Your task to perform on an android device: Open privacy settings Image 0: 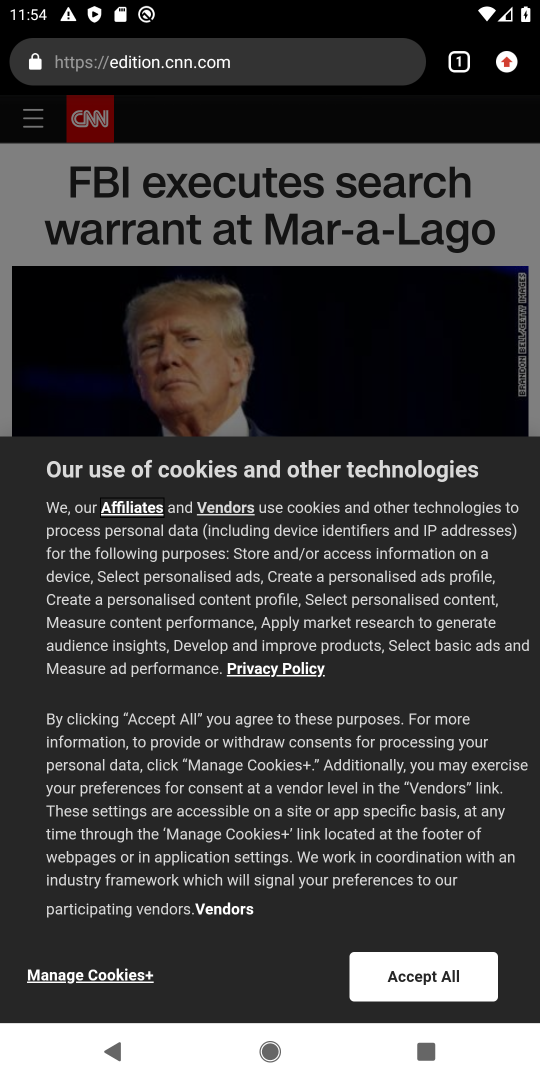
Step 0: press home button
Your task to perform on an android device: Open privacy settings Image 1: 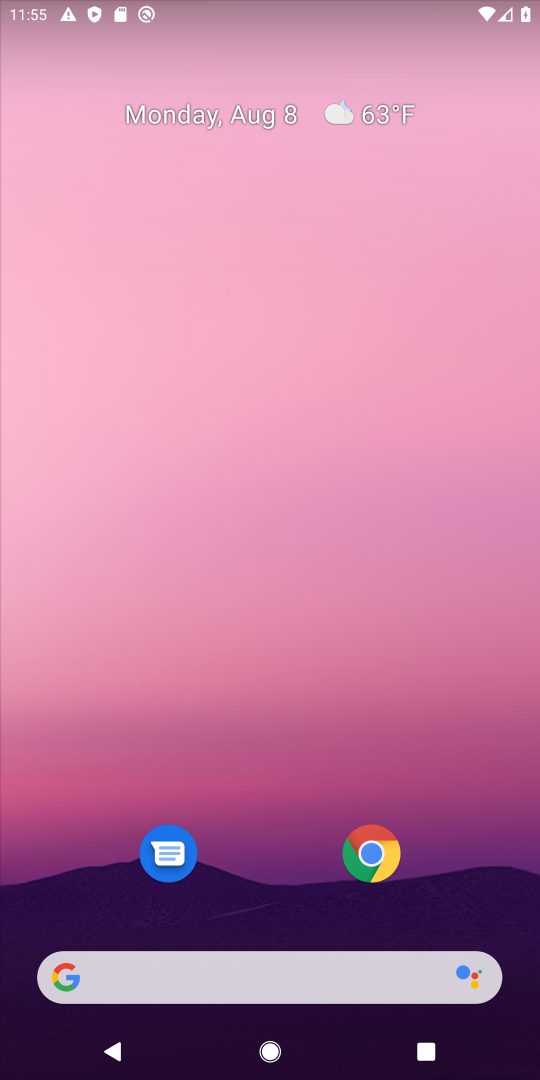
Step 1: drag from (249, 891) to (238, 48)
Your task to perform on an android device: Open privacy settings Image 2: 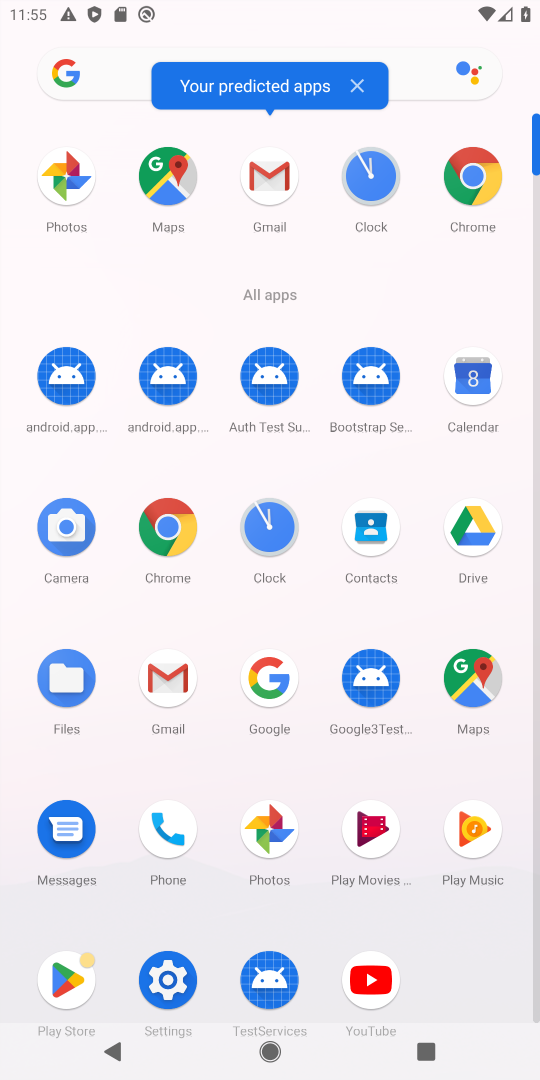
Step 2: click (171, 987)
Your task to perform on an android device: Open privacy settings Image 3: 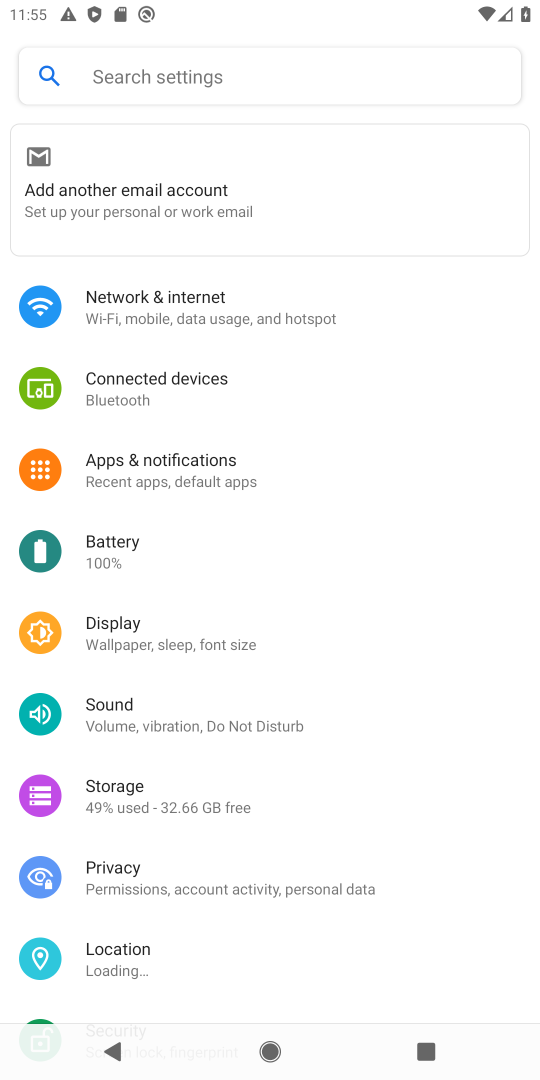
Step 3: click (141, 882)
Your task to perform on an android device: Open privacy settings Image 4: 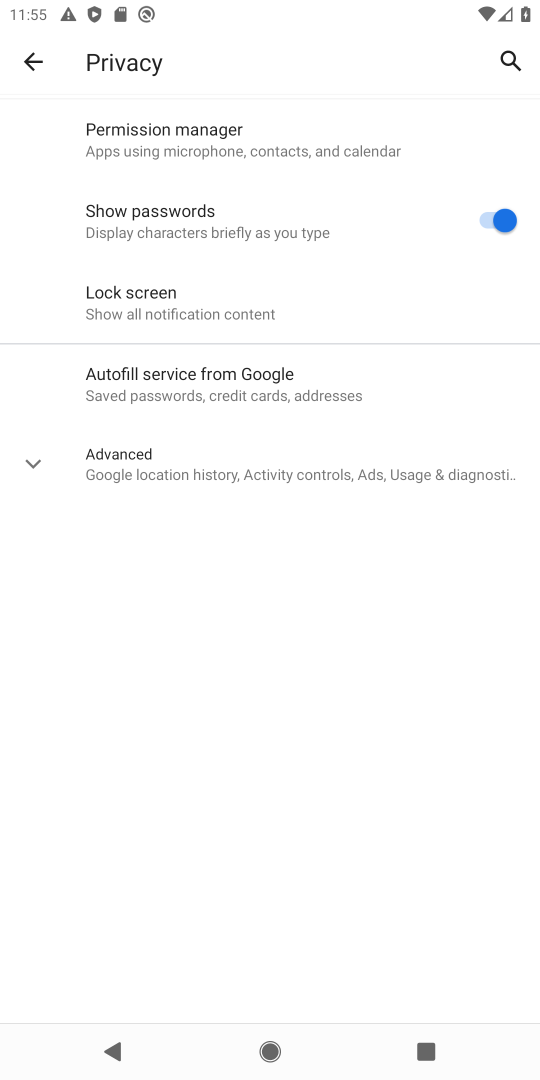
Step 4: task complete